Your task to perform on an android device: toggle improve location accuracy Image 0: 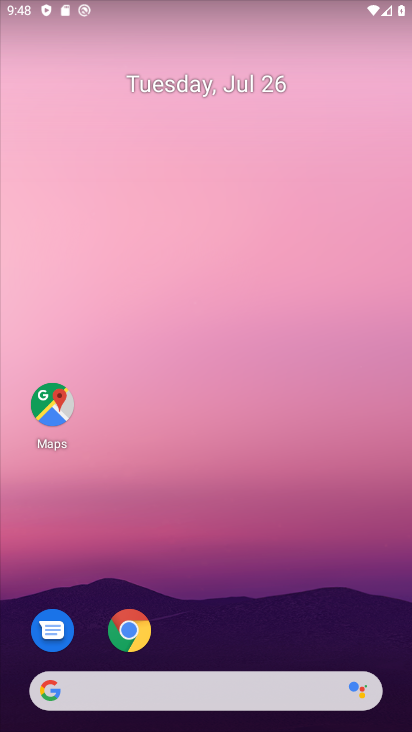
Step 0: drag from (387, 642) to (324, 149)
Your task to perform on an android device: toggle improve location accuracy Image 1: 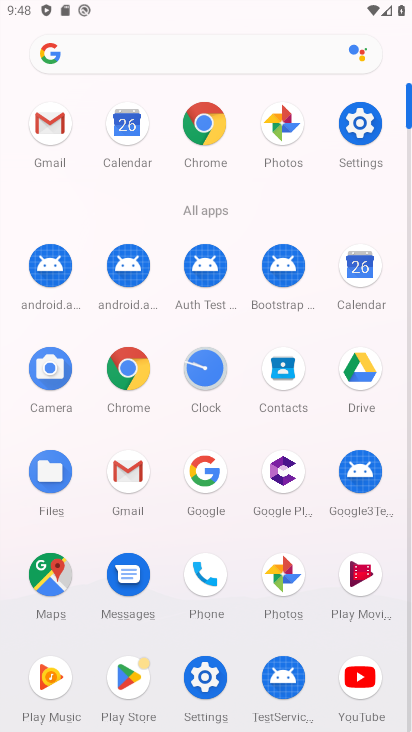
Step 1: click (204, 679)
Your task to perform on an android device: toggle improve location accuracy Image 2: 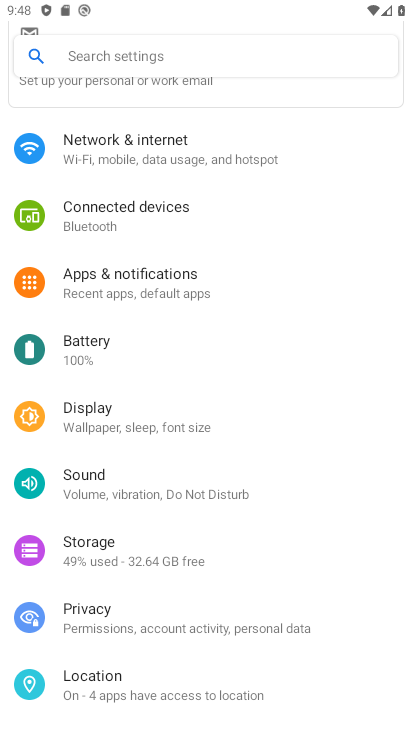
Step 2: click (104, 679)
Your task to perform on an android device: toggle improve location accuracy Image 3: 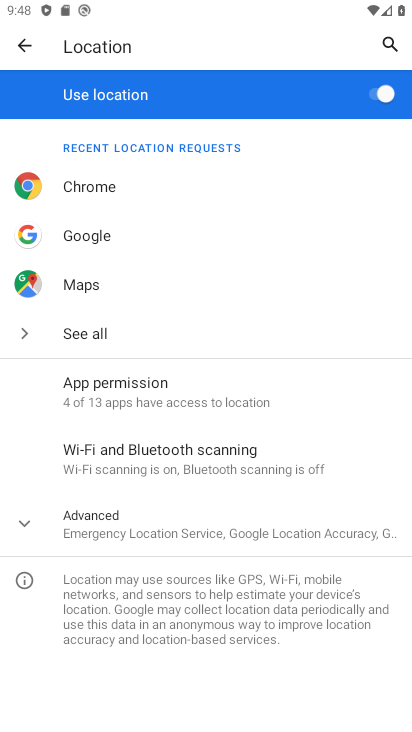
Step 3: click (22, 524)
Your task to perform on an android device: toggle improve location accuracy Image 4: 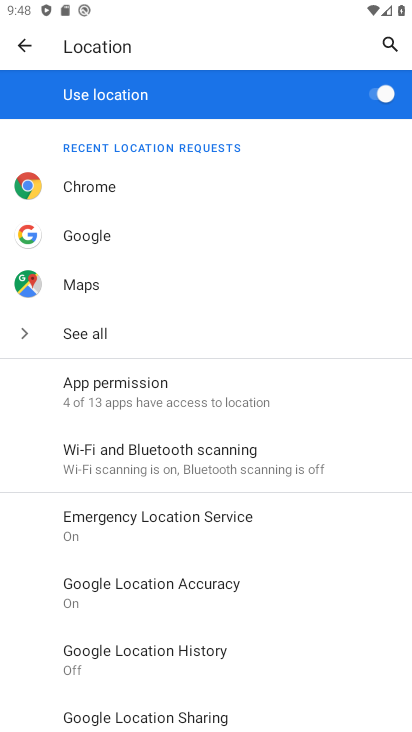
Step 4: click (129, 590)
Your task to perform on an android device: toggle improve location accuracy Image 5: 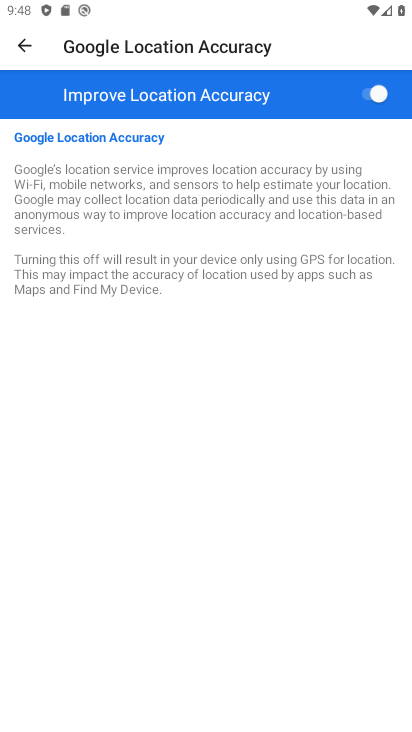
Step 5: click (361, 89)
Your task to perform on an android device: toggle improve location accuracy Image 6: 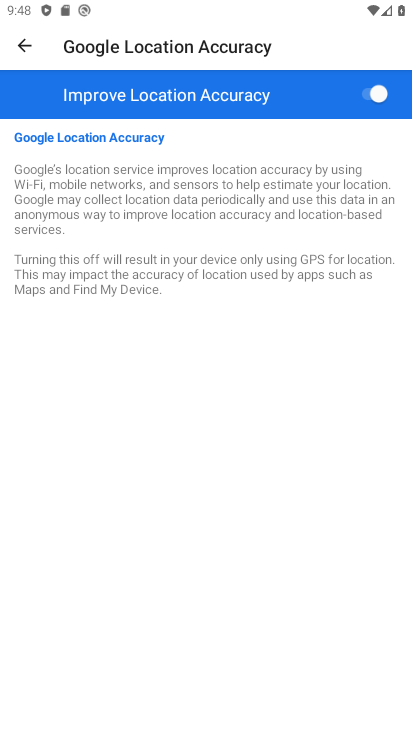
Step 6: click (361, 89)
Your task to perform on an android device: toggle improve location accuracy Image 7: 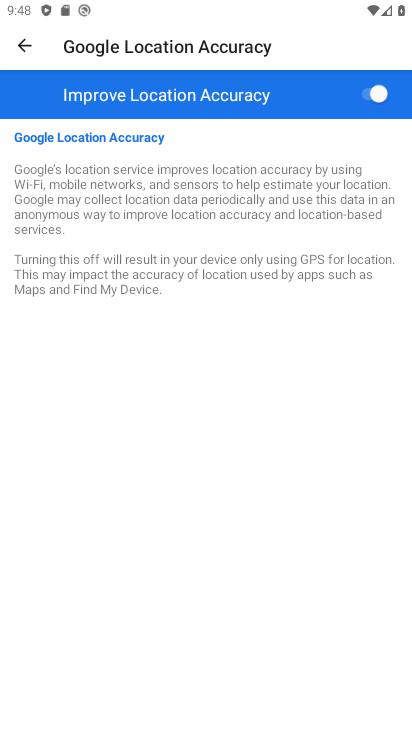
Step 7: click (368, 91)
Your task to perform on an android device: toggle improve location accuracy Image 8: 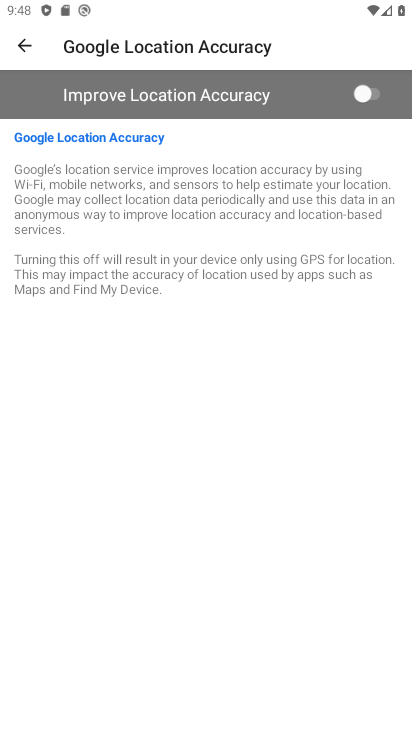
Step 8: task complete